Your task to perform on an android device: stop showing notifications on the lock screen Image 0: 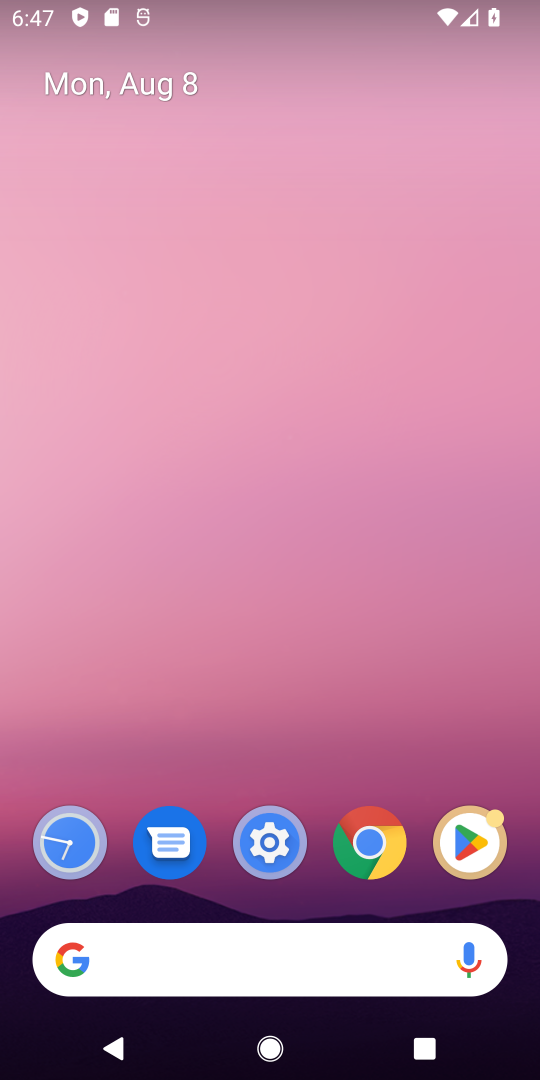
Step 0: drag from (332, 742) to (316, 50)
Your task to perform on an android device: stop showing notifications on the lock screen Image 1: 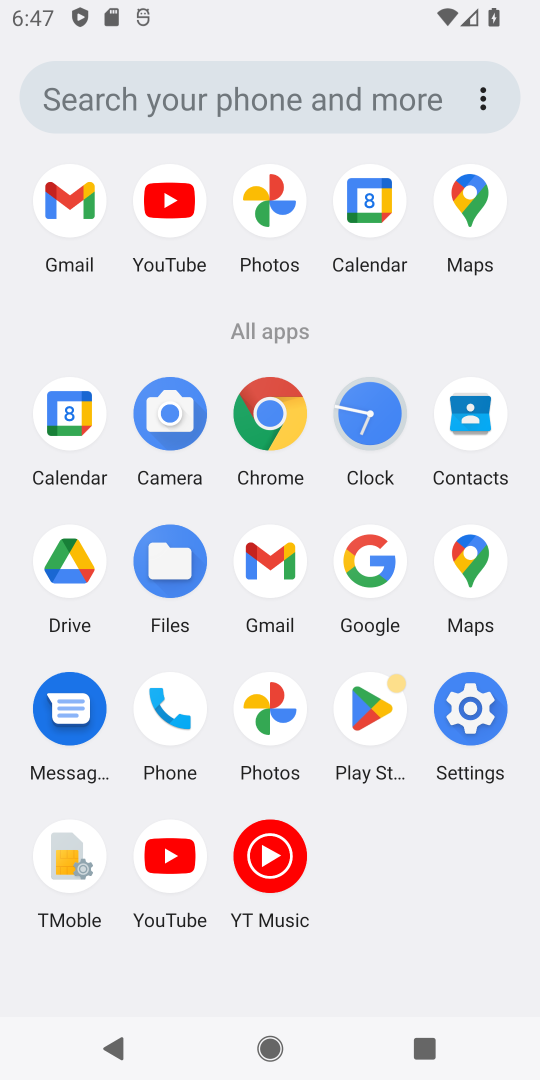
Step 1: click (479, 700)
Your task to perform on an android device: stop showing notifications on the lock screen Image 2: 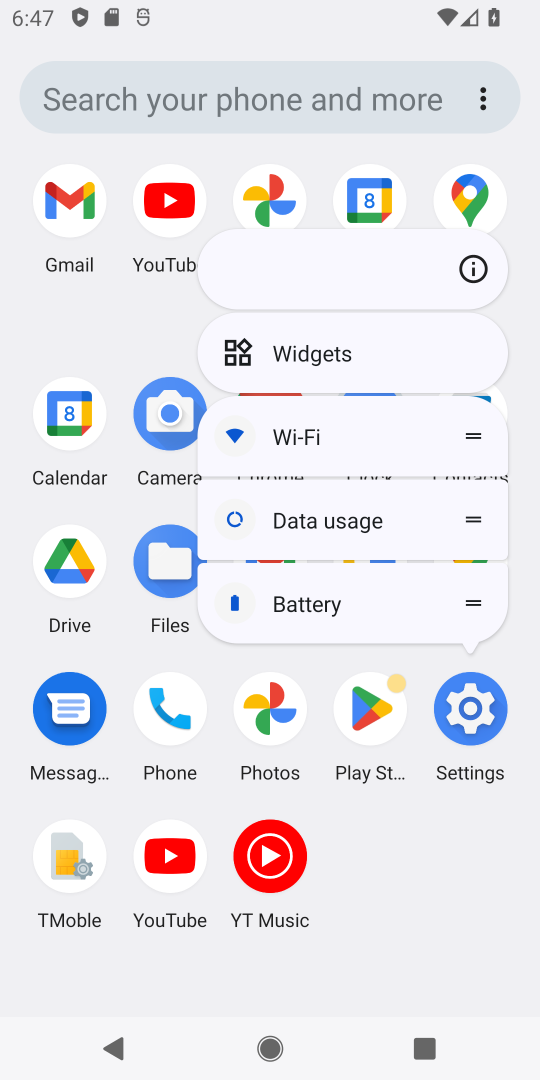
Step 2: click (467, 693)
Your task to perform on an android device: stop showing notifications on the lock screen Image 3: 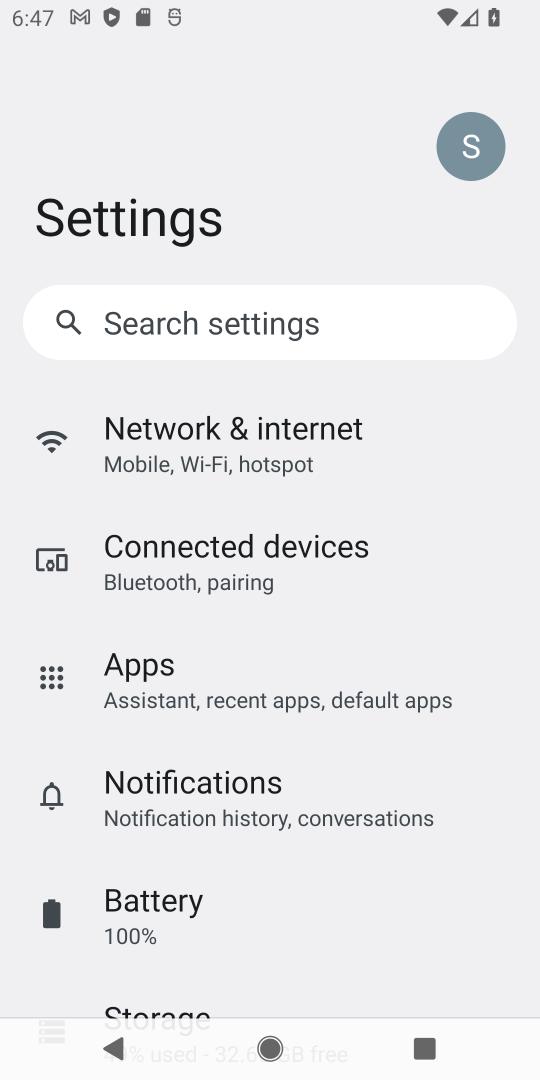
Step 3: drag from (323, 917) to (333, 385)
Your task to perform on an android device: stop showing notifications on the lock screen Image 4: 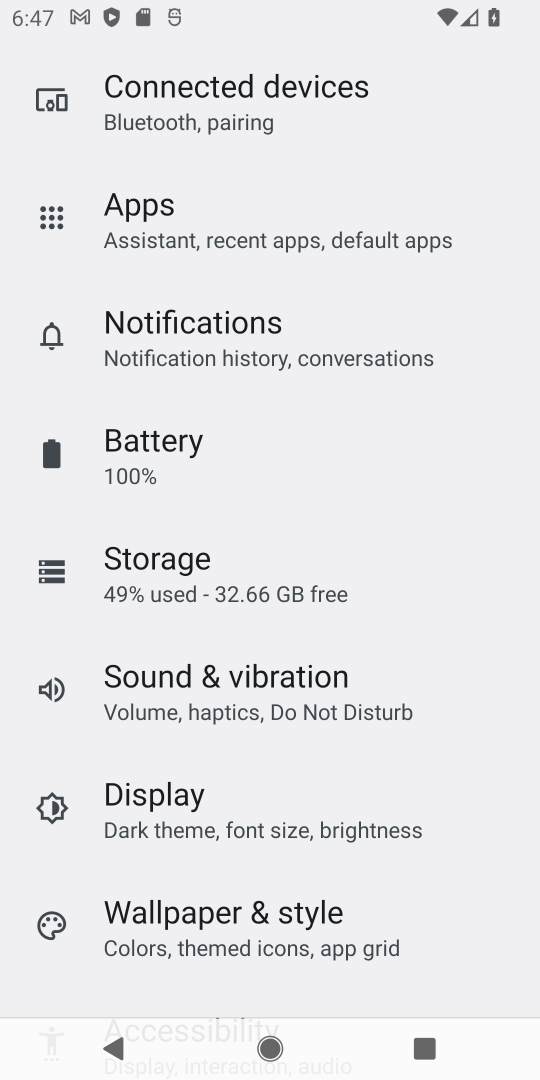
Step 4: click (154, 343)
Your task to perform on an android device: stop showing notifications on the lock screen Image 5: 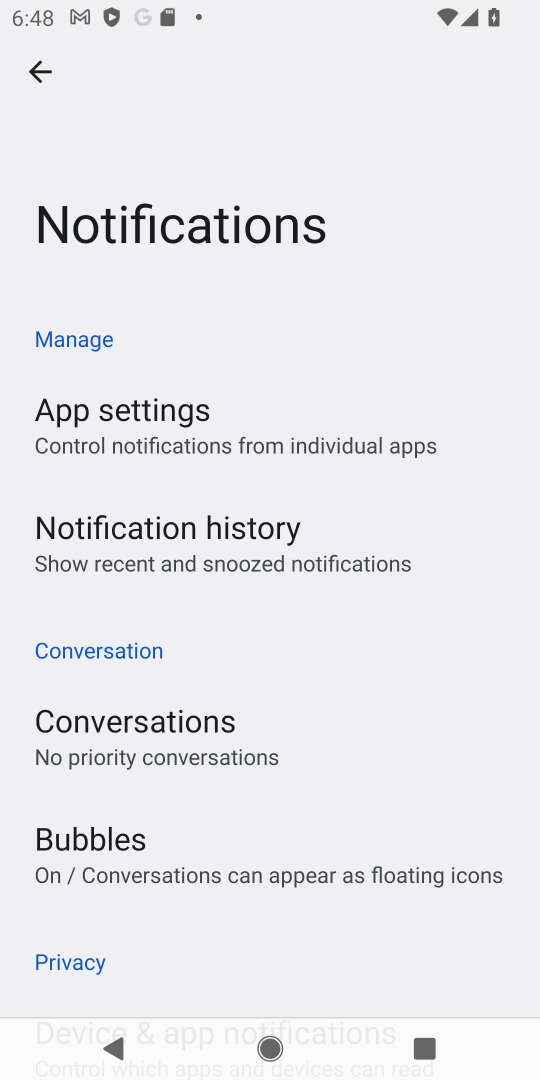
Step 5: click (172, 539)
Your task to perform on an android device: stop showing notifications on the lock screen Image 6: 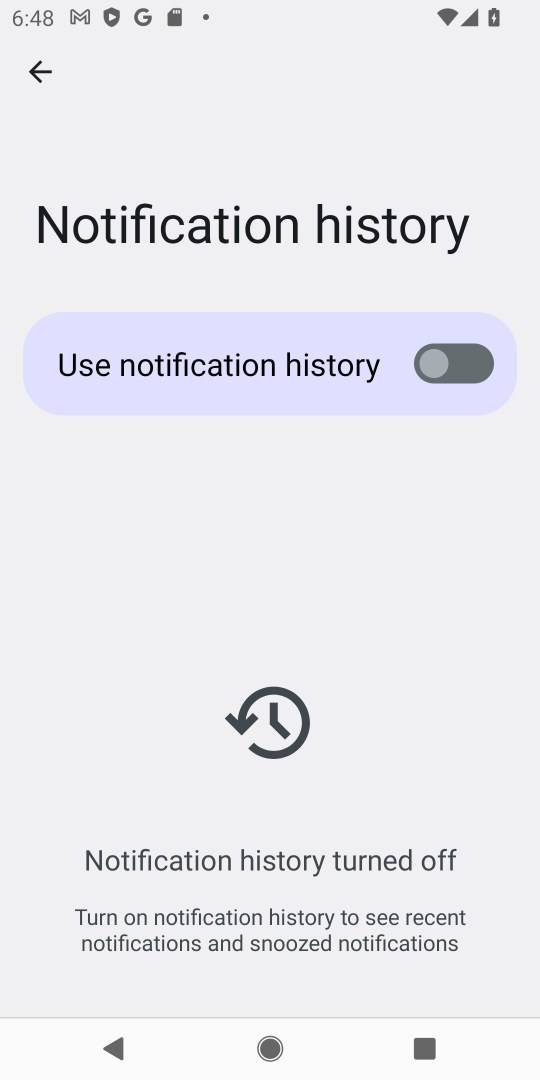
Step 6: click (451, 355)
Your task to perform on an android device: stop showing notifications on the lock screen Image 7: 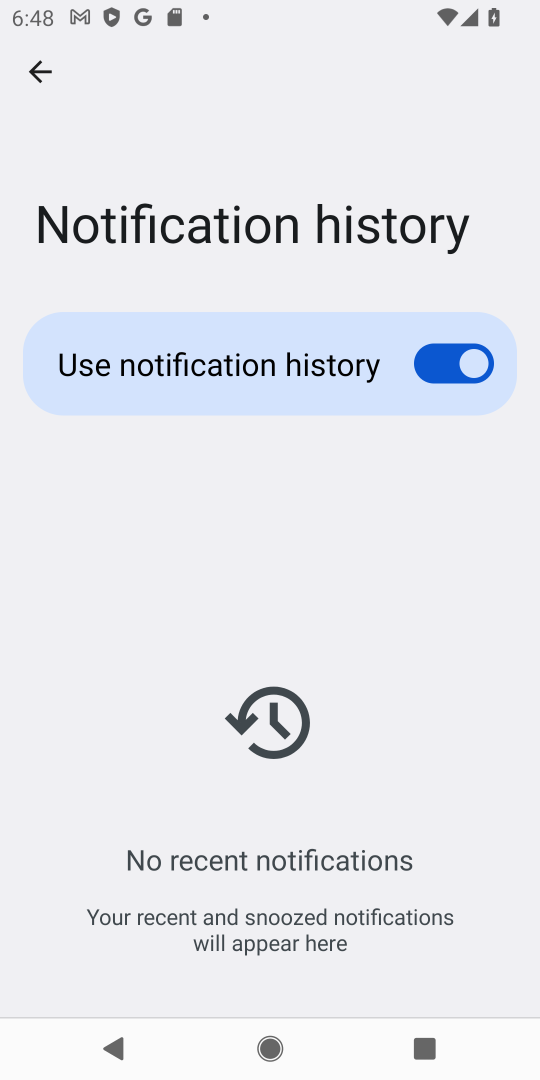
Step 7: drag from (269, 671) to (286, 292)
Your task to perform on an android device: stop showing notifications on the lock screen Image 8: 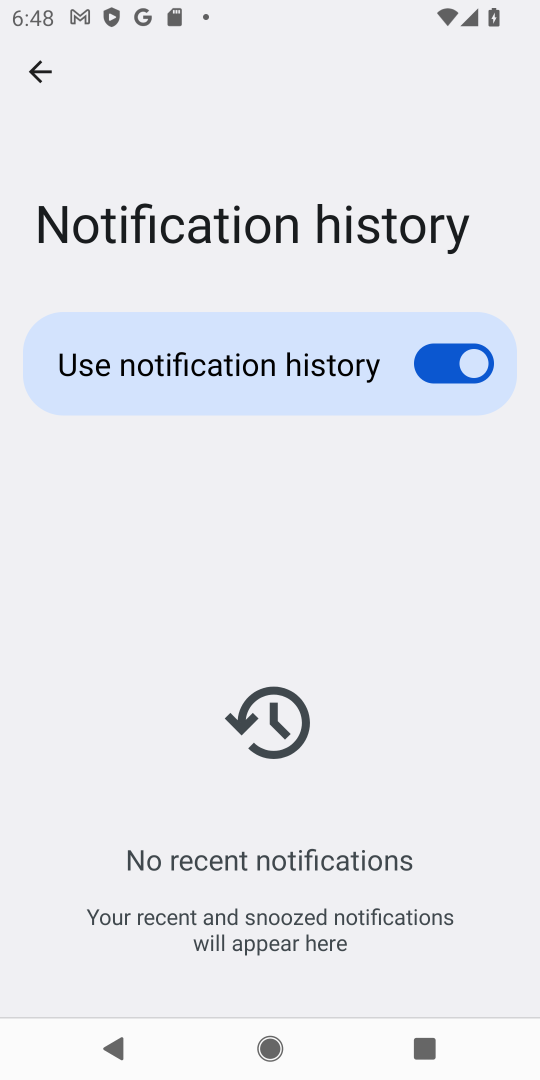
Step 8: click (46, 78)
Your task to perform on an android device: stop showing notifications on the lock screen Image 9: 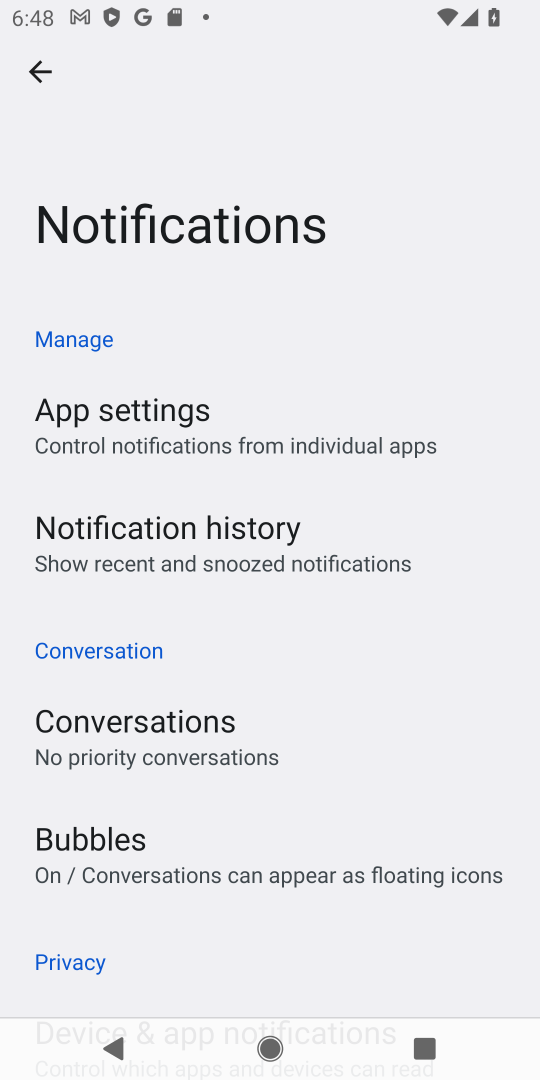
Step 9: drag from (316, 662) to (334, 377)
Your task to perform on an android device: stop showing notifications on the lock screen Image 10: 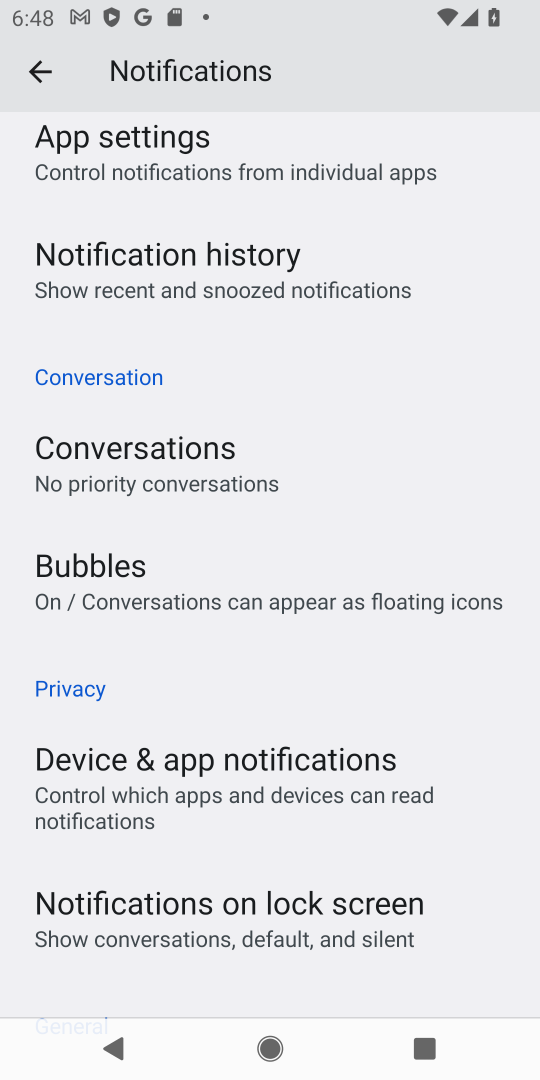
Step 10: drag from (350, 831) to (349, 418)
Your task to perform on an android device: stop showing notifications on the lock screen Image 11: 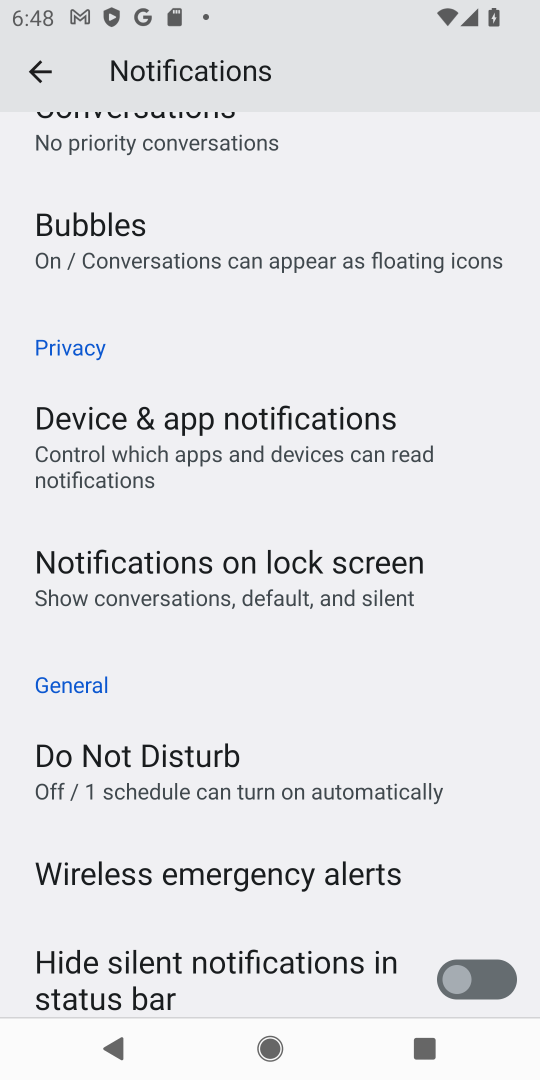
Step 11: click (214, 592)
Your task to perform on an android device: stop showing notifications on the lock screen Image 12: 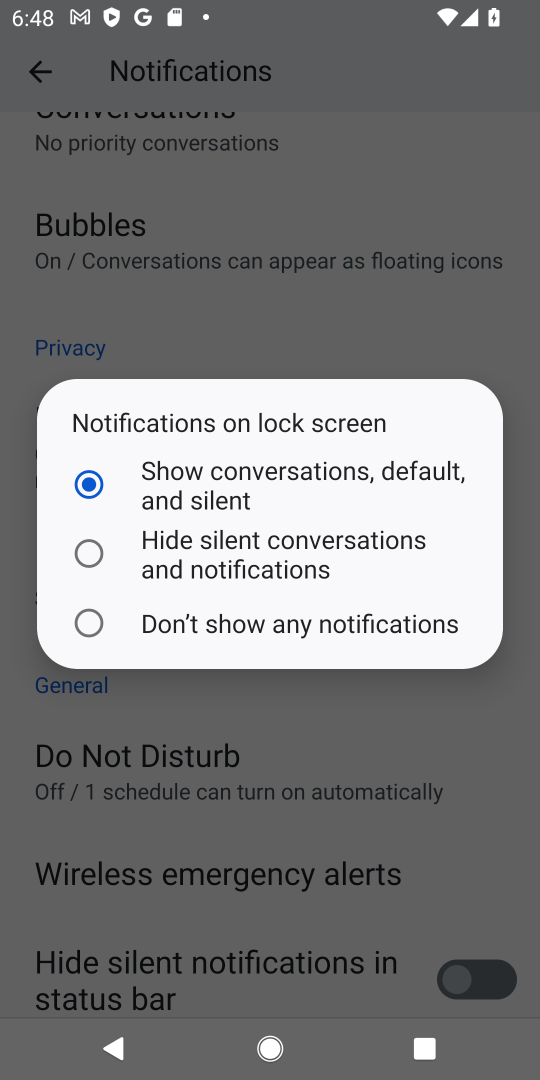
Step 12: click (197, 618)
Your task to perform on an android device: stop showing notifications on the lock screen Image 13: 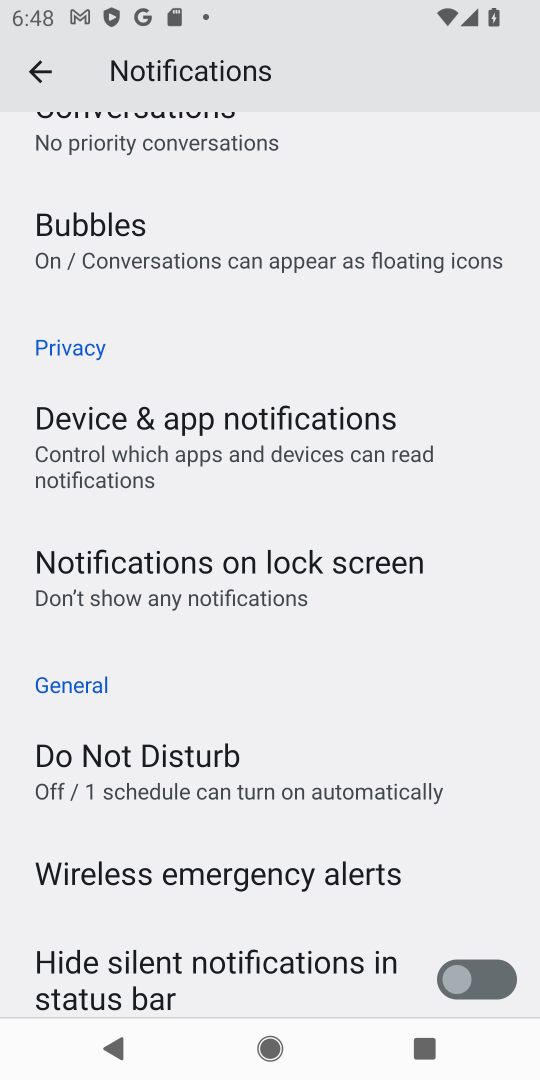
Step 13: task complete